Your task to perform on an android device: Open Google Maps and go to "Timeline" Image 0: 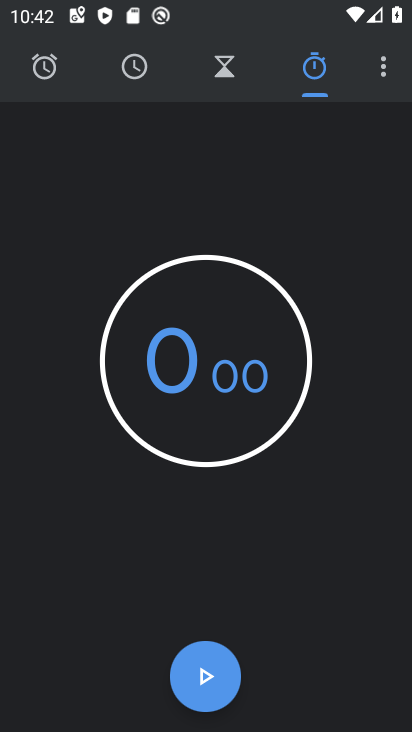
Step 0: press home button
Your task to perform on an android device: Open Google Maps and go to "Timeline" Image 1: 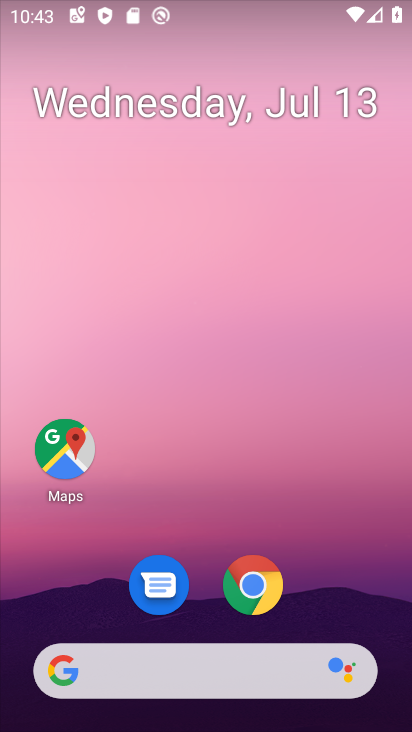
Step 1: click (59, 449)
Your task to perform on an android device: Open Google Maps and go to "Timeline" Image 2: 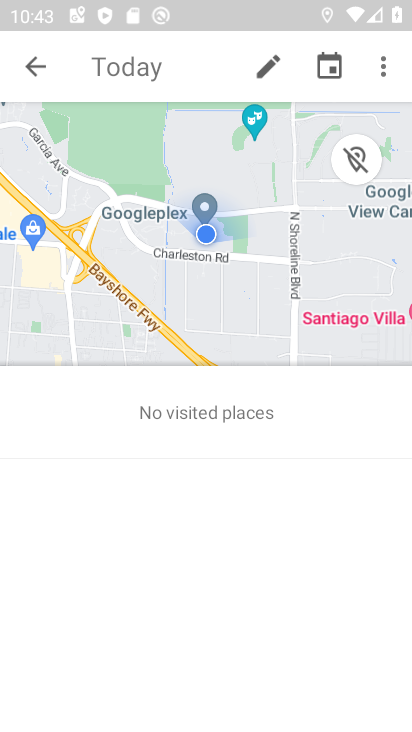
Step 2: click (35, 63)
Your task to perform on an android device: Open Google Maps and go to "Timeline" Image 3: 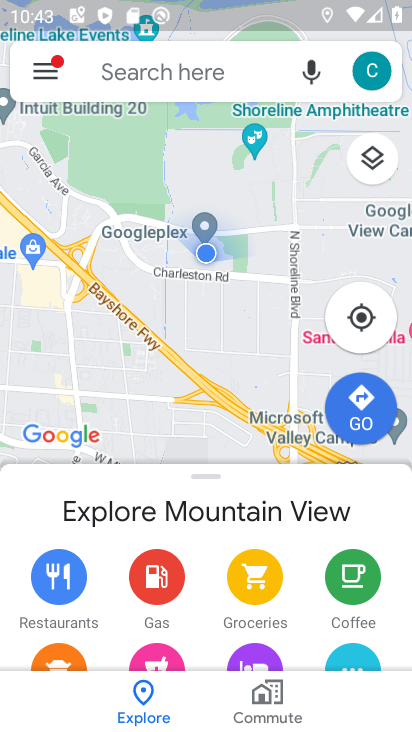
Step 3: click (35, 63)
Your task to perform on an android device: Open Google Maps and go to "Timeline" Image 4: 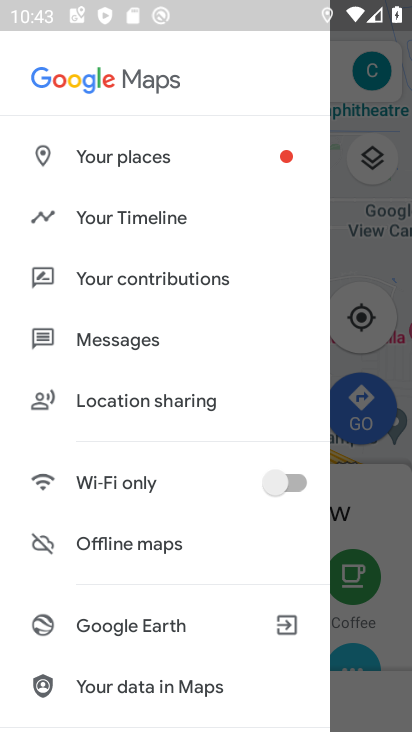
Step 4: click (108, 210)
Your task to perform on an android device: Open Google Maps and go to "Timeline" Image 5: 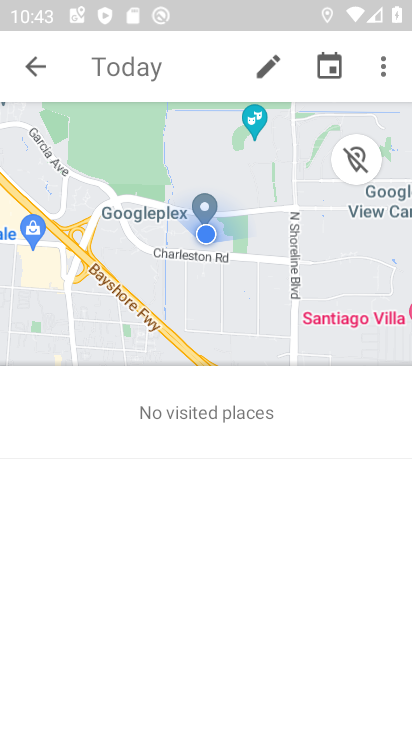
Step 5: task complete